Your task to perform on an android device: change timer sound Image 0: 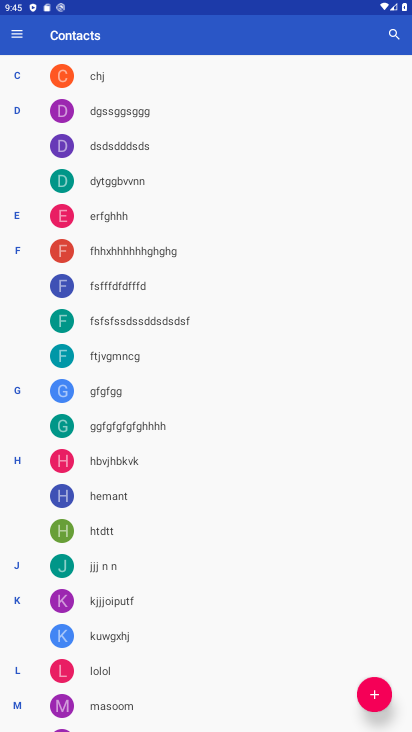
Step 0: press home button
Your task to perform on an android device: change timer sound Image 1: 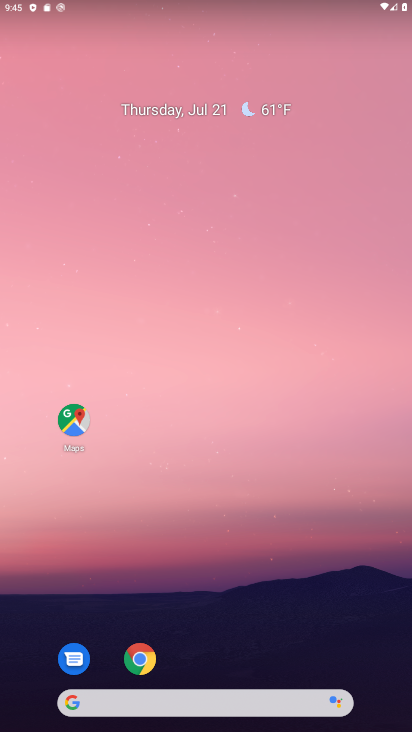
Step 1: drag from (42, 717) to (332, 28)
Your task to perform on an android device: change timer sound Image 2: 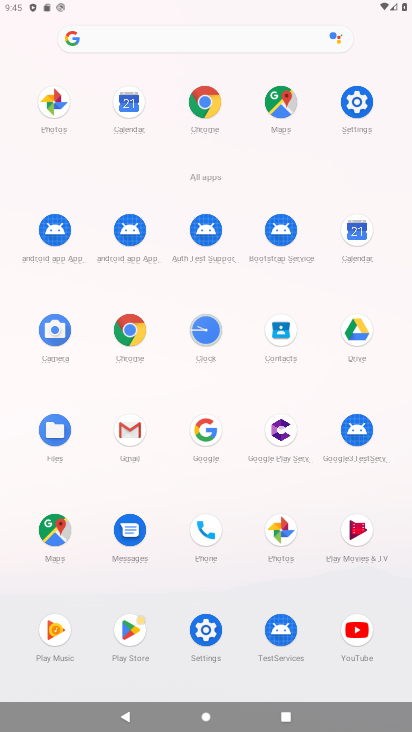
Step 2: click (206, 632)
Your task to perform on an android device: change timer sound Image 3: 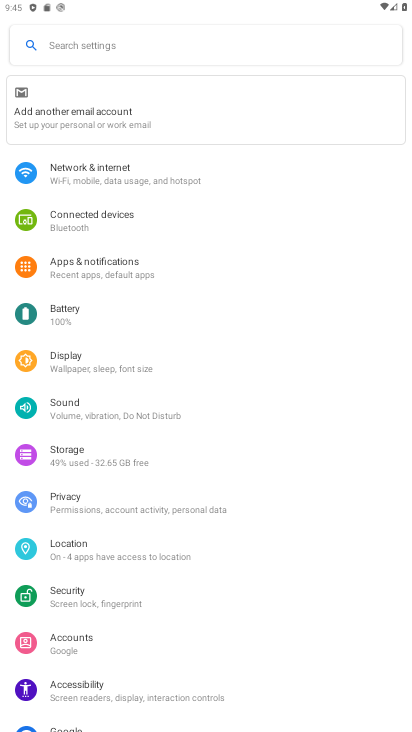
Step 3: press home button
Your task to perform on an android device: change timer sound Image 4: 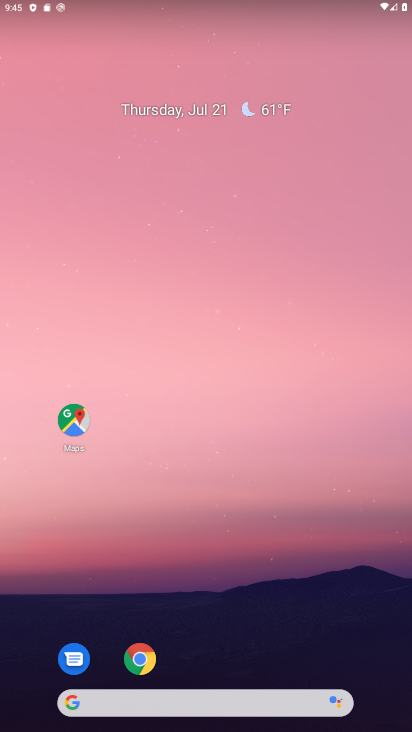
Step 4: drag from (25, 690) to (322, 13)
Your task to perform on an android device: change timer sound Image 5: 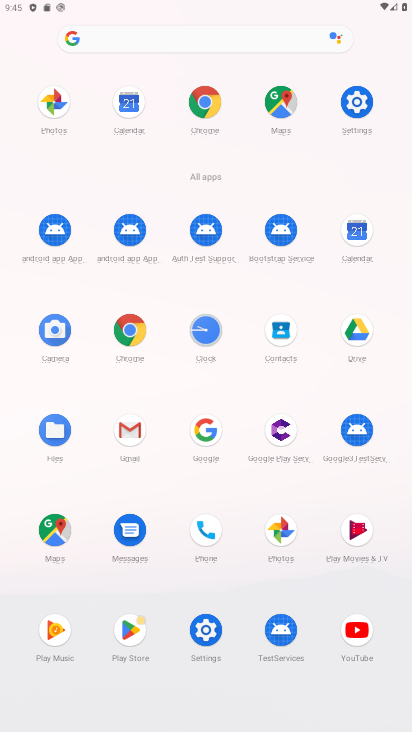
Step 5: click (194, 338)
Your task to perform on an android device: change timer sound Image 6: 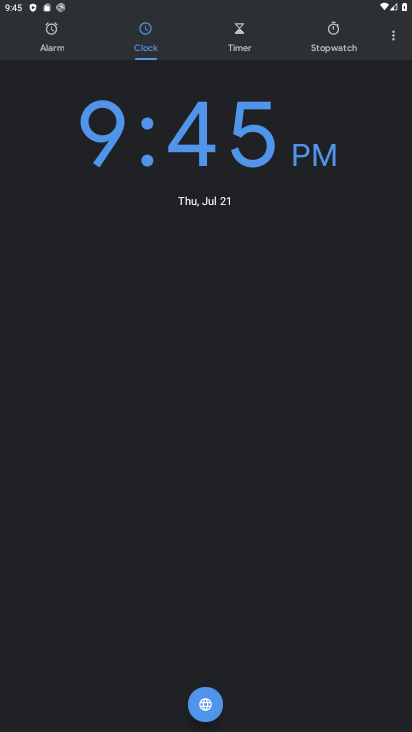
Step 6: click (241, 31)
Your task to perform on an android device: change timer sound Image 7: 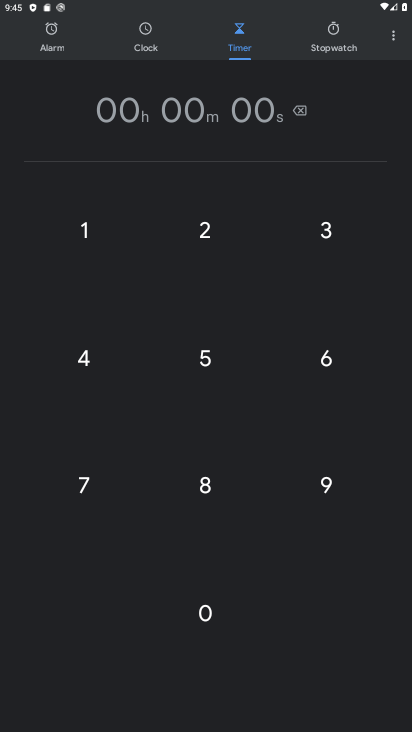
Step 7: click (390, 31)
Your task to perform on an android device: change timer sound Image 8: 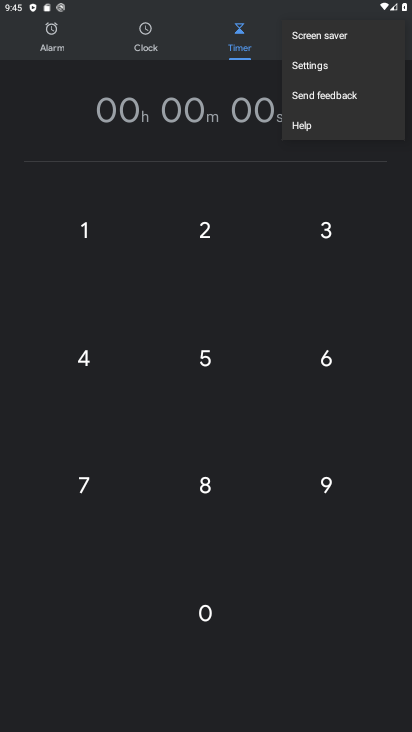
Step 8: click (317, 71)
Your task to perform on an android device: change timer sound Image 9: 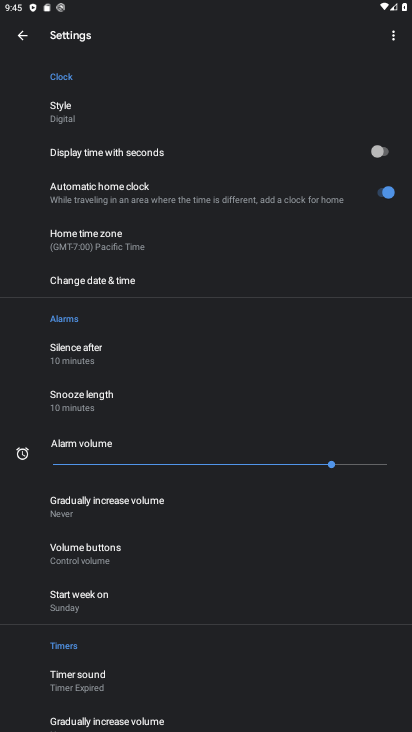
Step 9: click (73, 697)
Your task to perform on an android device: change timer sound Image 10: 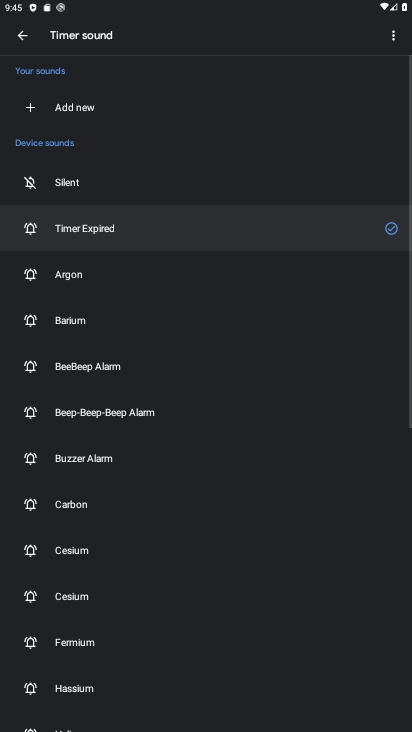
Step 10: click (56, 279)
Your task to perform on an android device: change timer sound Image 11: 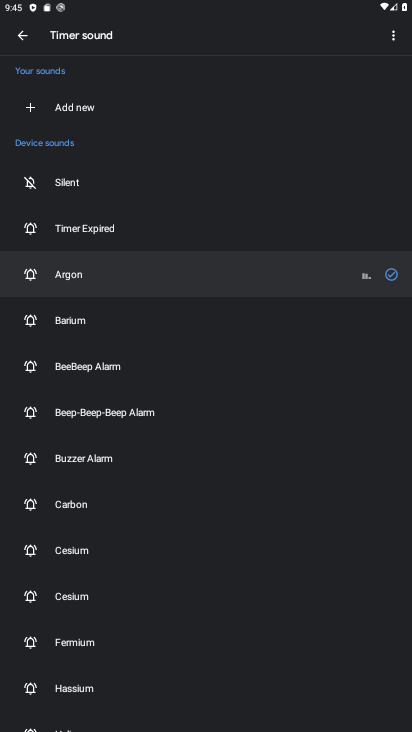
Step 11: task complete